Your task to perform on an android device: Open Google Maps Image 0: 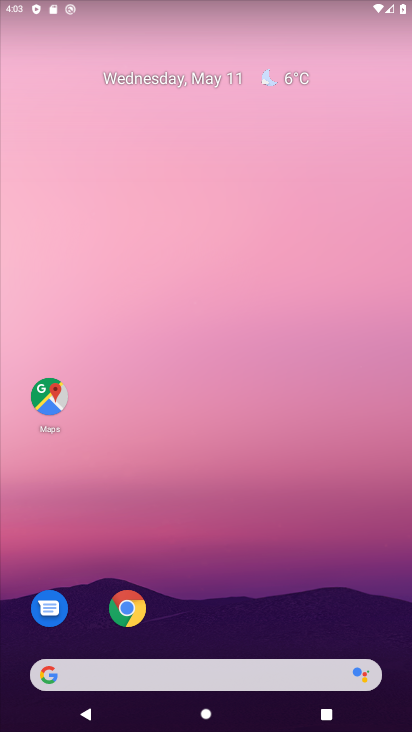
Step 0: drag from (224, 723) to (247, 227)
Your task to perform on an android device: Open Google Maps Image 1: 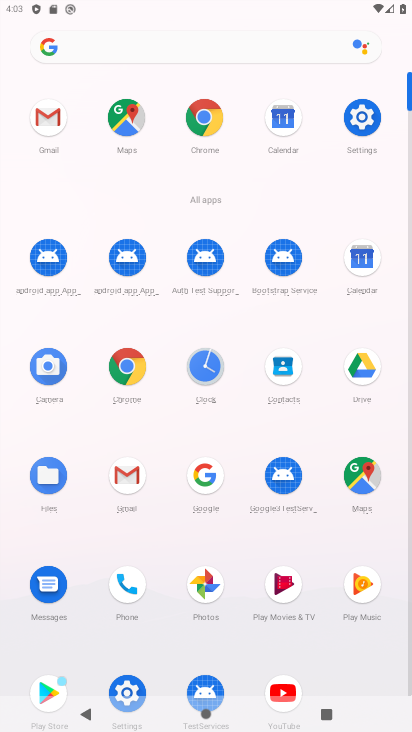
Step 1: click (359, 477)
Your task to perform on an android device: Open Google Maps Image 2: 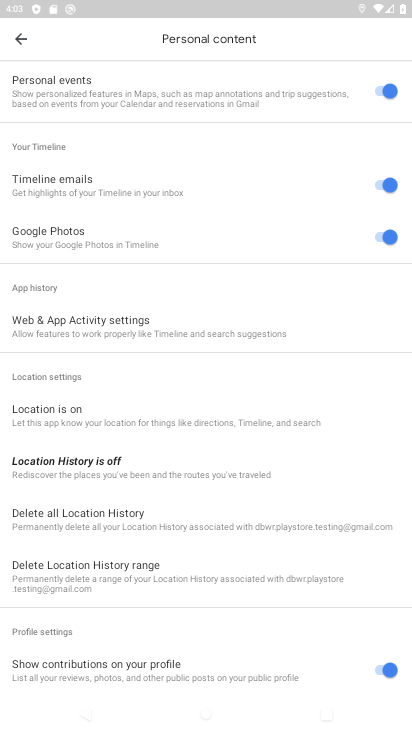
Step 2: task complete